Your task to perform on an android device: Open internet settings Image 0: 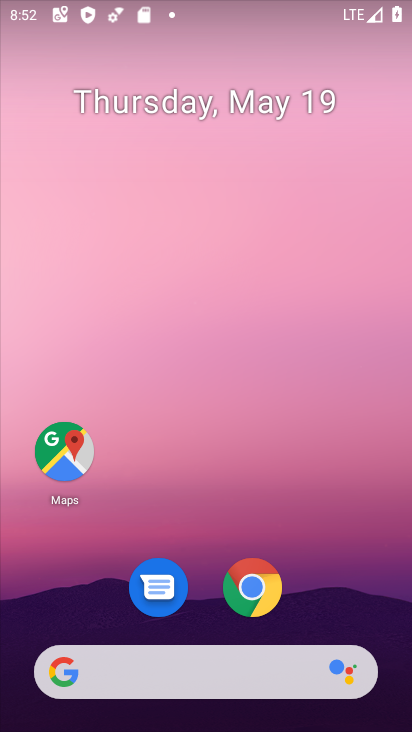
Step 0: drag from (329, 580) to (242, 23)
Your task to perform on an android device: Open internet settings Image 1: 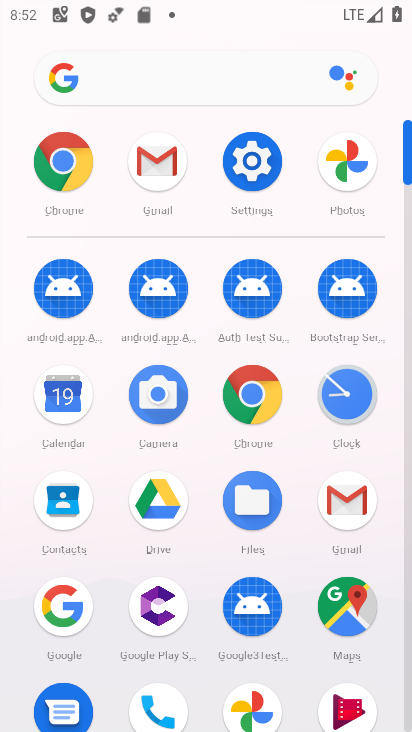
Step 1: drag from (7, 516) to (4, 171)
Your task to perform on an android device: Open internet settings Image 2: 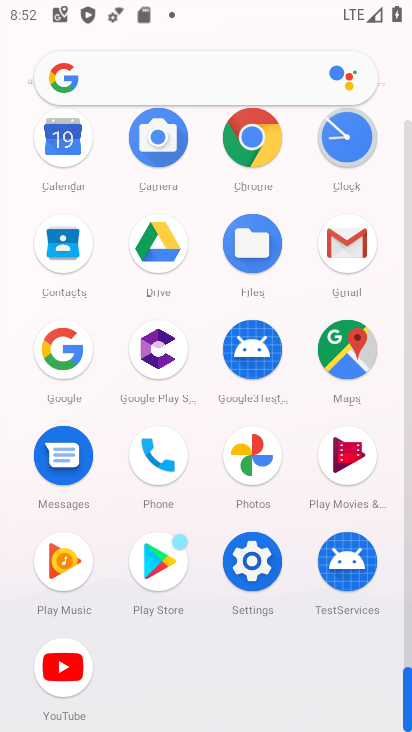
Step 2: click (248, 560)
Your task to perform on an android device: Open internet settings Image 3: 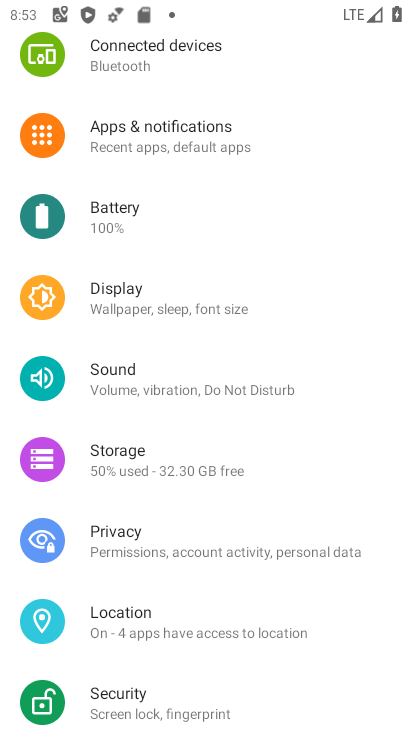
Step 3: drag from (288, 148) to (329, 645)
Your task to perform on an android device: Open internet settings Image 4: 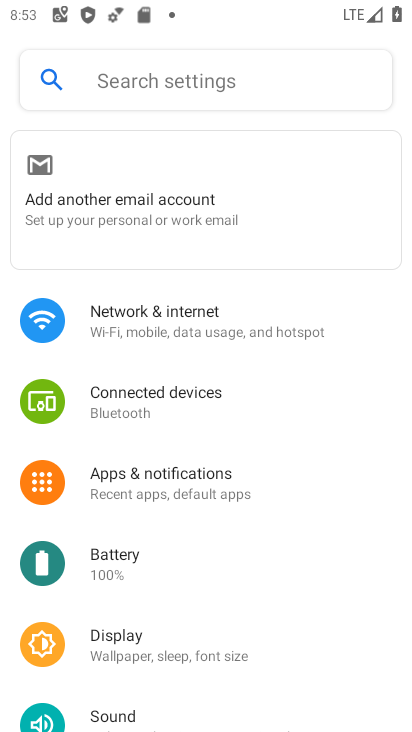
Step 4: click (221, 312)
Your task to perform on an android device: Open internet settings Image 5: 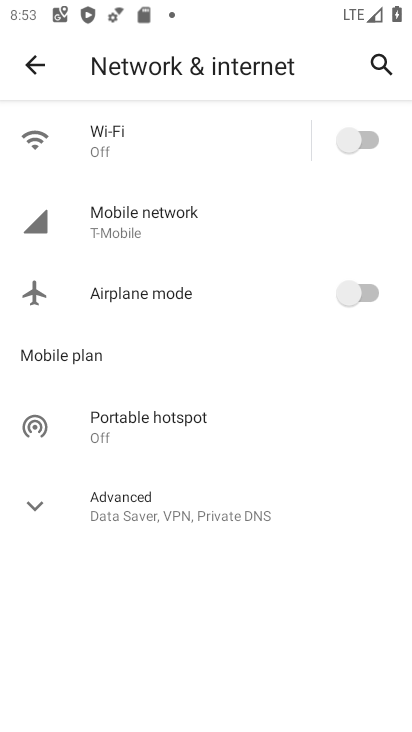
Step 5: click (55, 505)
Your task to perform on an android device: Open internet settings Image 6: 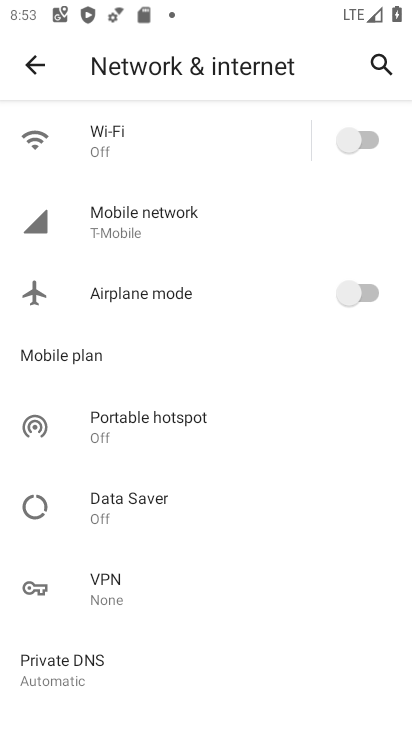
Step 6: task complete